Your task to perform on an android device: Open the Play Movies app and select the watchlist tab. Image 0: 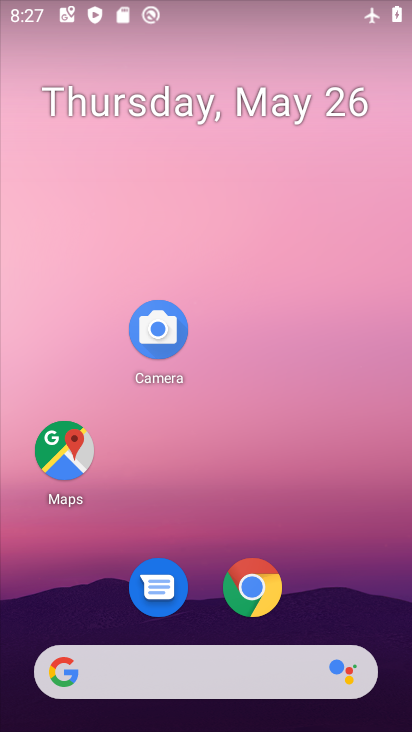
Step 0: drag from (197, 636) to (220, 226)
Your task to perform on an android device: Open the Play Movies app and select the watchlist tab. Image 1: 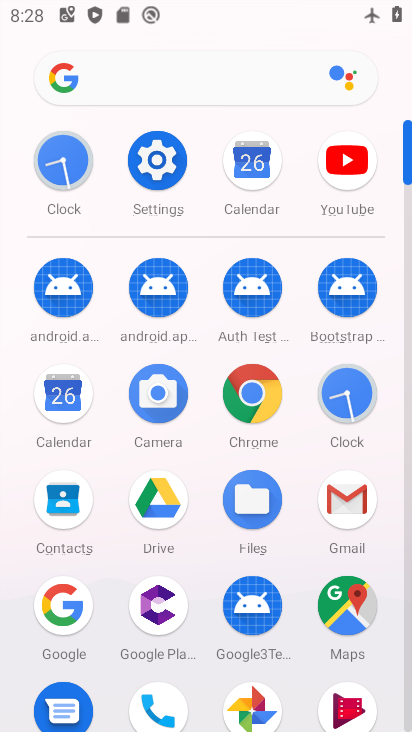
Step 1: drag from (268, 633) to (281, 305)
Your task to perform on an android device: Open the Play Movies app and select the watchlist tab. Image 2: 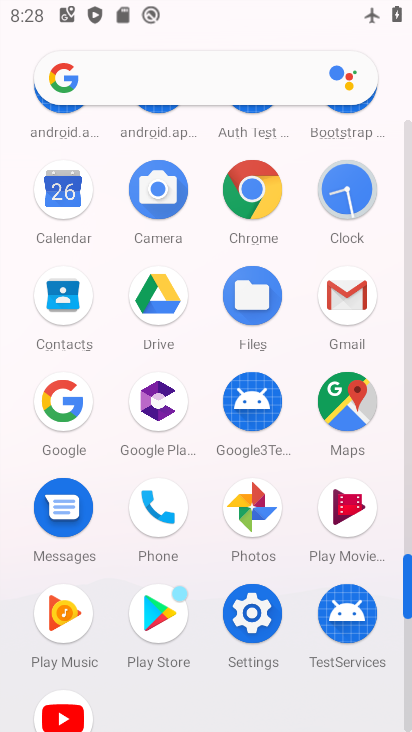
Step 2: click (347, 499)
Your task to perform on an android device: Open the Play Movies app and select the watchlist tab. Image 3: 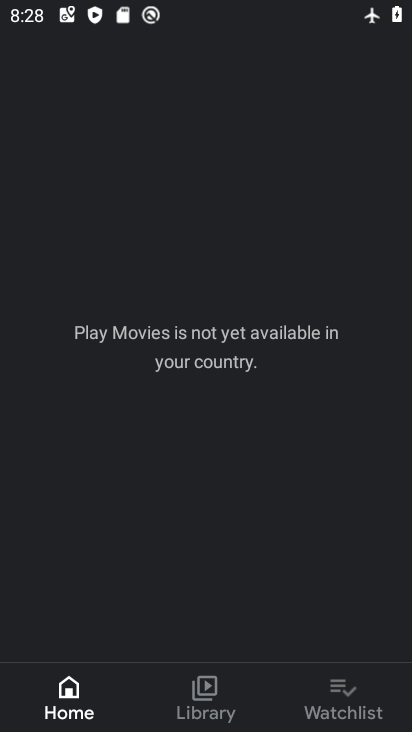
Step 3: click (338, 681)
Your task to perform on an android device: Open the Play Movies app and select the watchlist tab. Image 4: 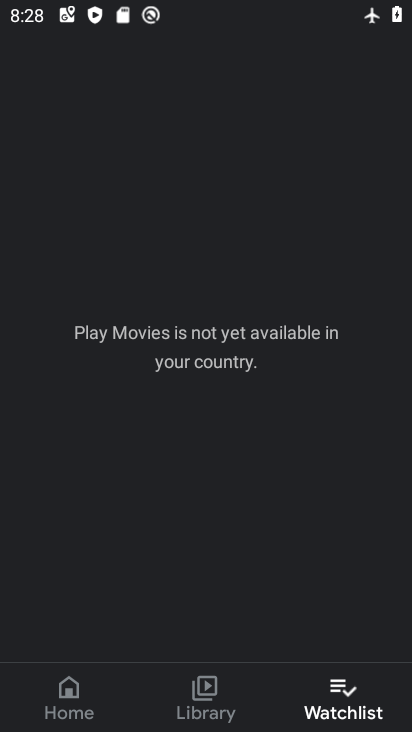
Step 4: task complete